Your task to perform on an android device: Open Google Chrome and click the shortcut for Amazon.com Image 0: 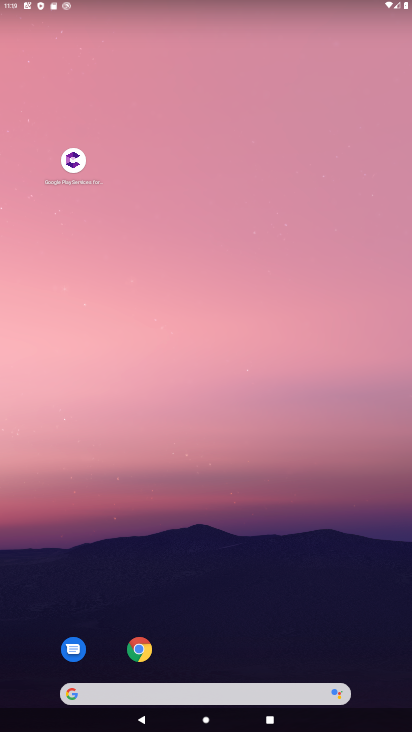
Step 0: click (373, 656)
Your task to perform on an android device: Open Google Chrome and click the shortcut for Amazon.com Image 1: 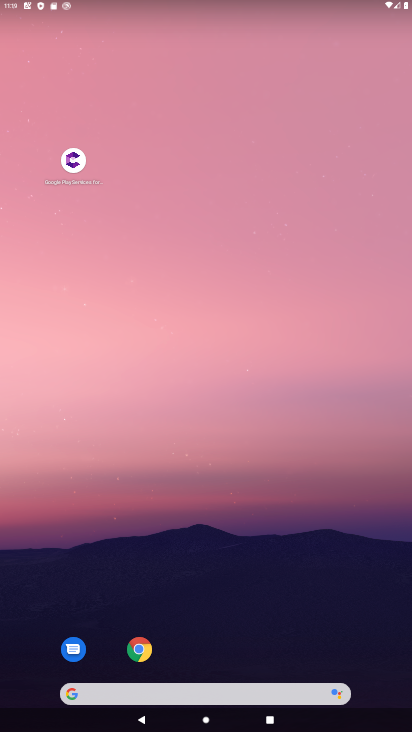
Step 1: drag from (373, 432) to (368, 97)
Your task to perform on an android device: Open Google Chrome and click the shortcut for Amazon.com Image 2: 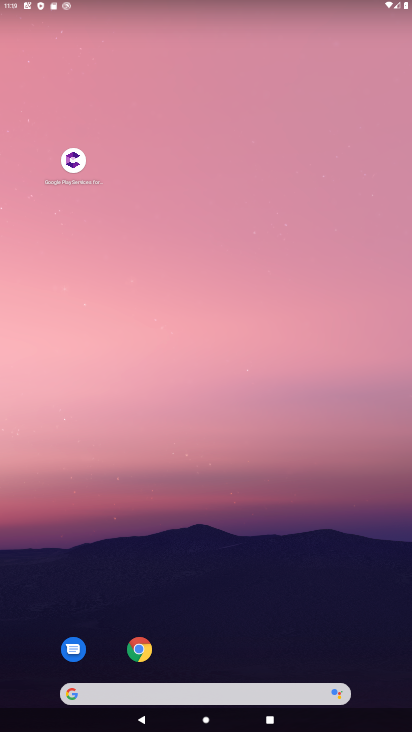
Step 2: drag from (329, 654) to (289, 0)
Your task to perform on an android device: Open Google Chrome and click the shortcut for Amazon.com Image 3: 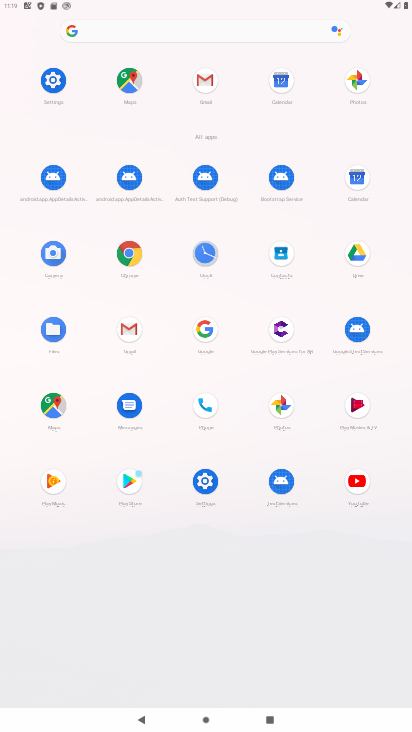
Step 3: click (111, 274)
Your task to perform on an android device: Open Google Chrome and click the shortcut for Amazon.com Image 4: 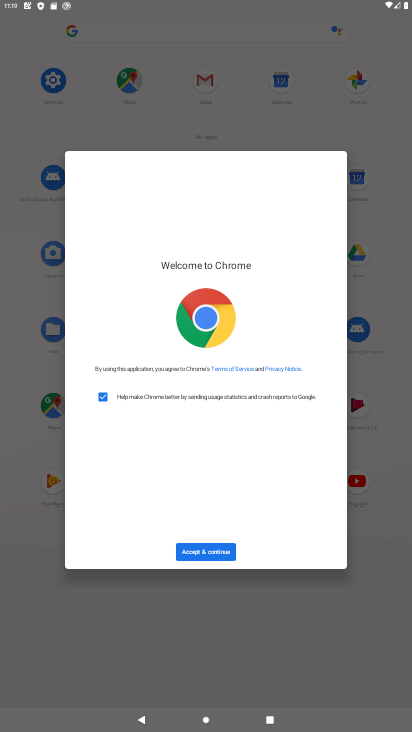
Step 4: click (193, 538)
Your task to perform on an android device: Open Google Chrome and click the shortcut for Amazon.com Image 5: 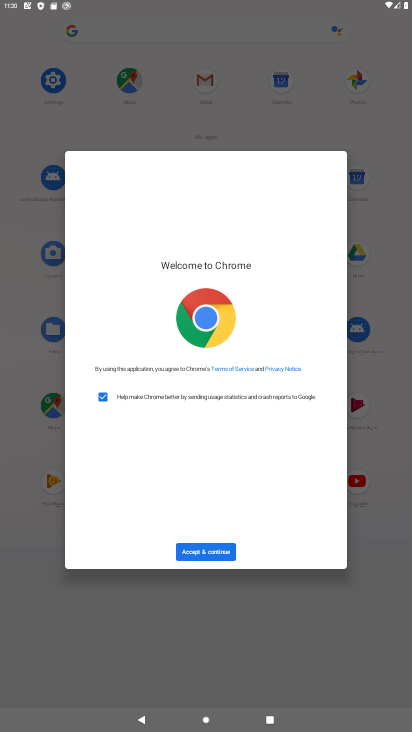
Step 5: click (225, 551)
Your task to perform on an android device: Open Google Chrome and click the shortcut for Amazon.com Image 6: 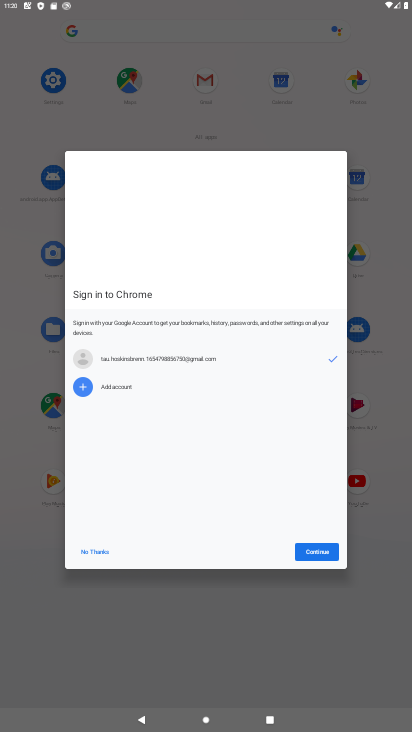
Step 6: click (310, 547)
Your task to perform on an android device: Open Google Chrome and click the shortcut for Amazon.com Image 7: 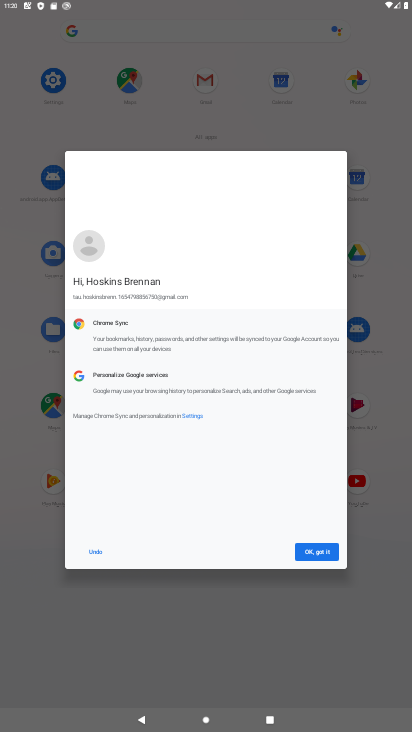
Step 7: click (333, 563)
Your task to perform on an android device: Open Google Chrome and click the shortcut for Amazon.com Image 8: 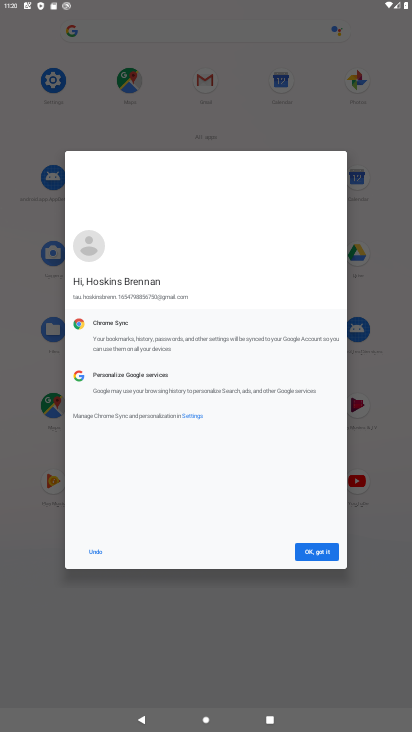
Step 8: click (329, 543)
Your task to perform on an android device: Open Google Chrome and click the shortcut for Amazon.com Image 9: 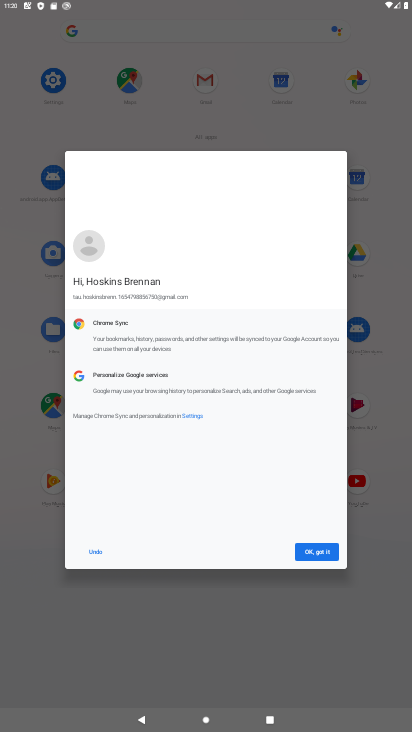
Step 9: click (329, 547)
Your task to perform on an android device: Open Google Chrome and click the shortcut for Amazon.com Image 10: 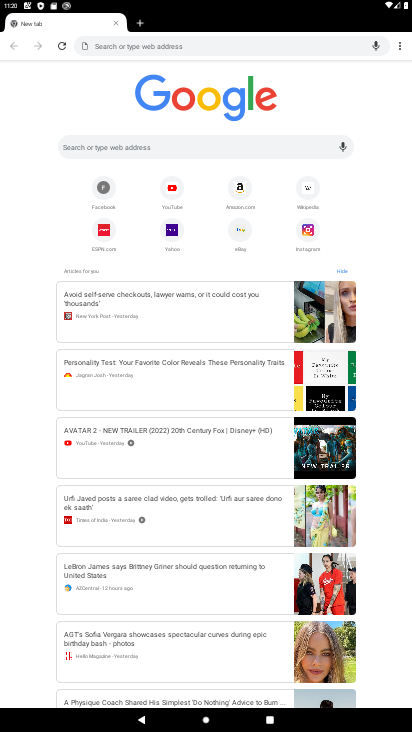
Step 10: click (234, 183)
Your task to perform on an android device: Open Google Chrome and click the shortcut for Amazon.com Image 11: 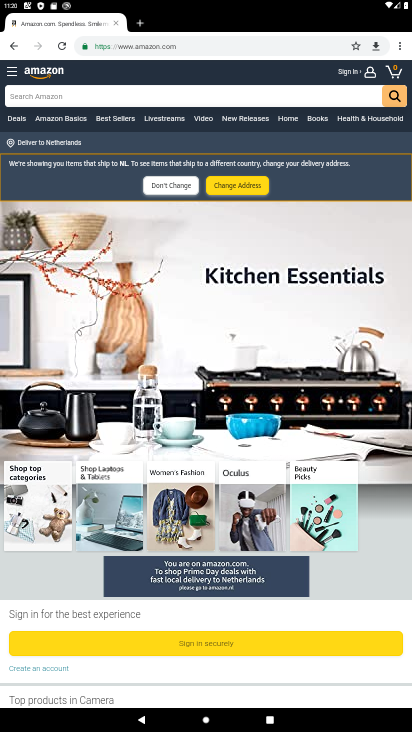
Step 11: task complete